Your task to perform on an android device: find photos in the google photos app Image 0: 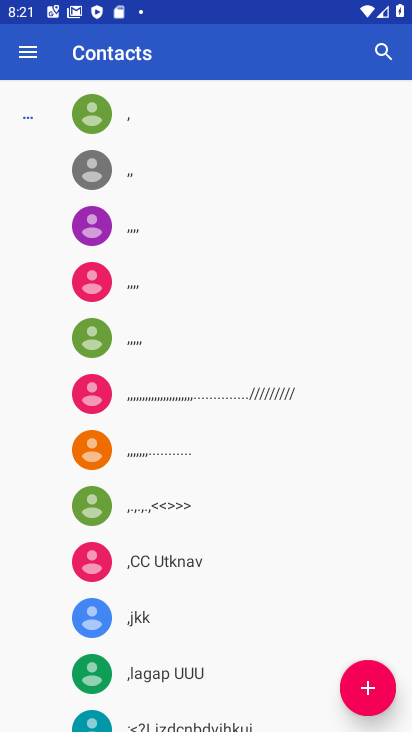
Step 0: press home button
Your task to perform on an android device: find photos in the google photos app Image 1: 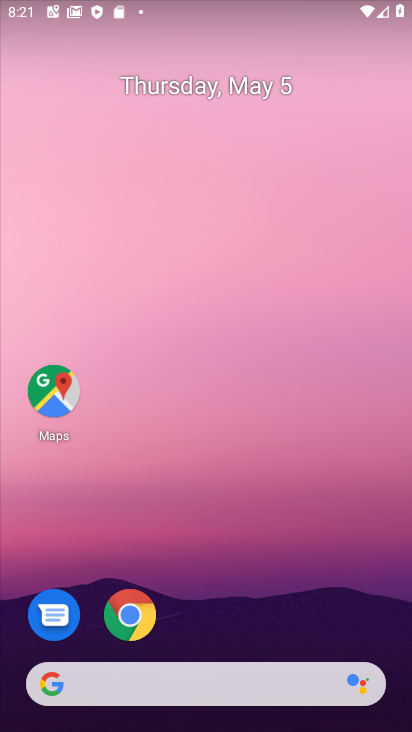
Step 1: drag from (216, 610) to (157, 12)
Your task to perform on an android device: find photos in the google photos app Image 2: 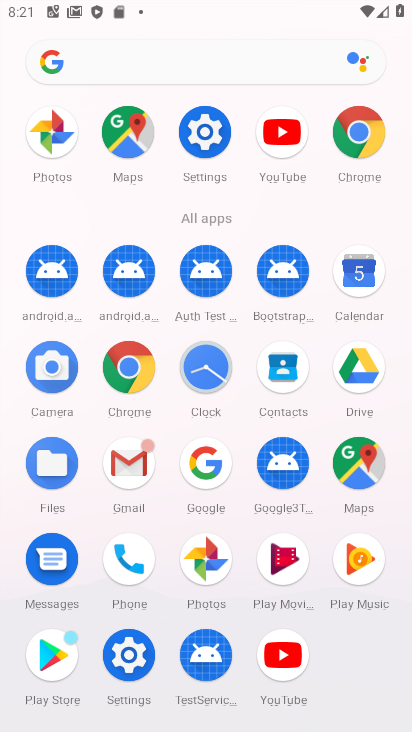
Step 2: click (213, 572)
Your task to perform on an android device: find photos in the google photos app Image 3: 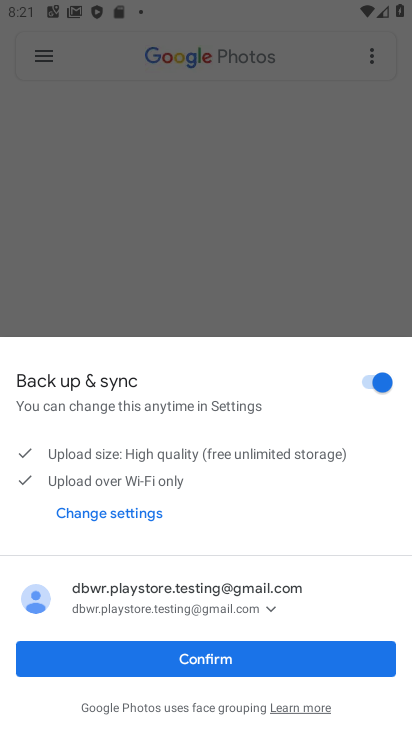
Step 3: click (156, 664)
Your task to perform on an android device: find photos in the google photos app Image 4: 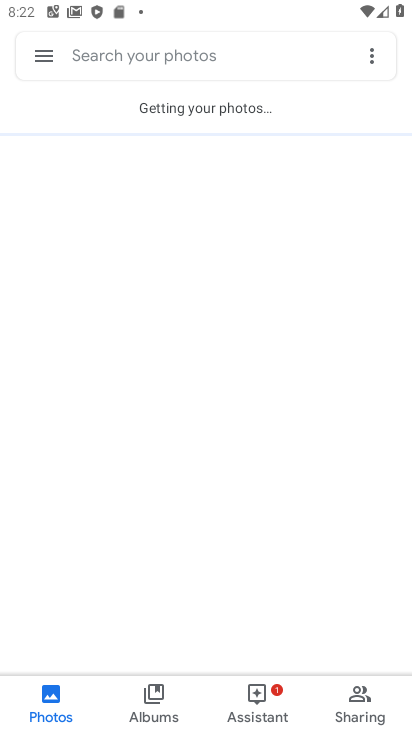
Step 4: drag from (179, 447) to (204, 261)
Your task to perform on an android device: find photos in the google photos app Image 5: 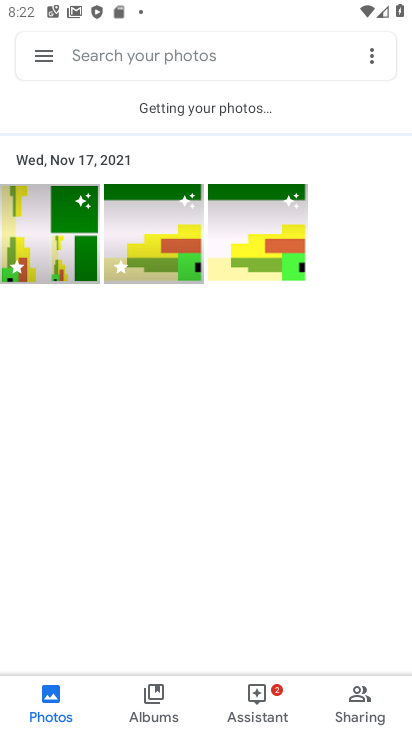
Step 5: click (50, 239)
Your task to perform on an android device: find photos in the google photos app Image 6: 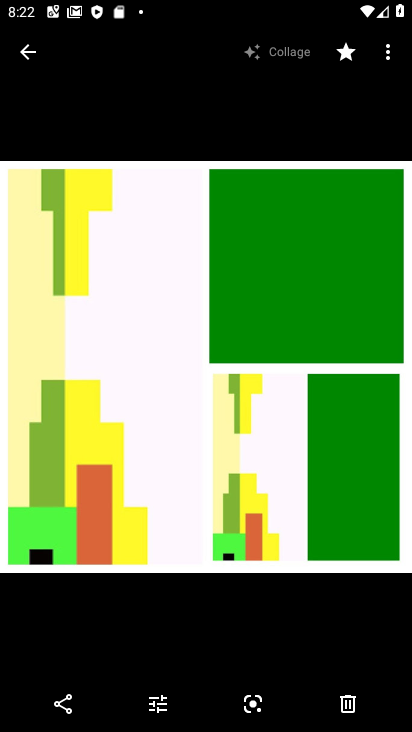
Step 6: task complete